Your task to perform on an android device: Is it going to rain today? Image 0: 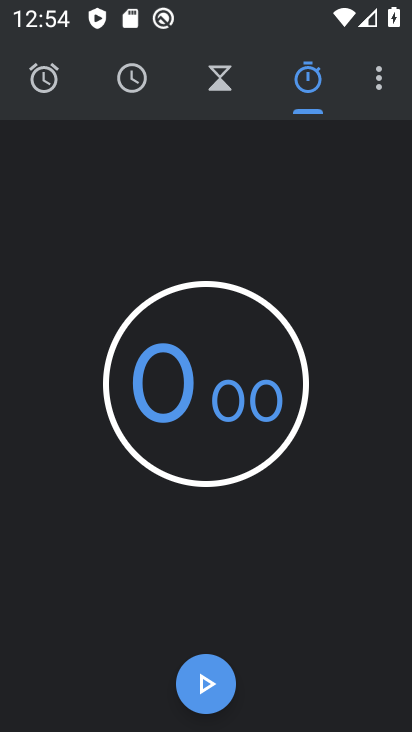
Step 0: press home button
Your task to perform on an android device: Is it going to rain today? Image 1: 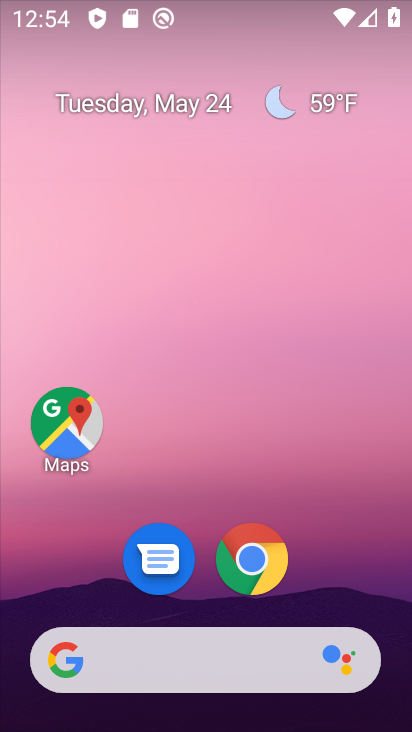
Step 1: drag from (387, 643) to (290, 56)
Your task to perform on an android device: Is it going to rain today? Image 2: 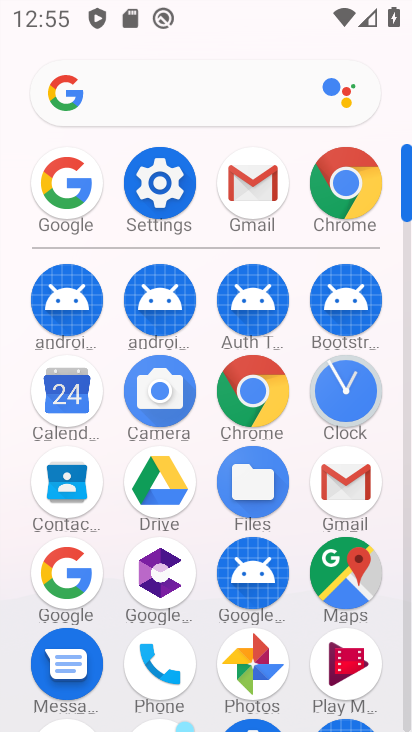
Step 2: click (72, 189)
Your task to perform on an android device: Is it going to rain today? Image 3: 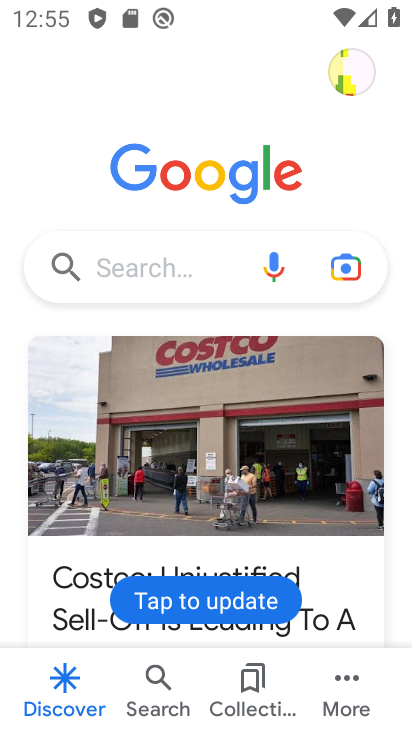
Step 3: click (145, 269)
Your task to perform on an android device: Is it going to rain today? Image 4: 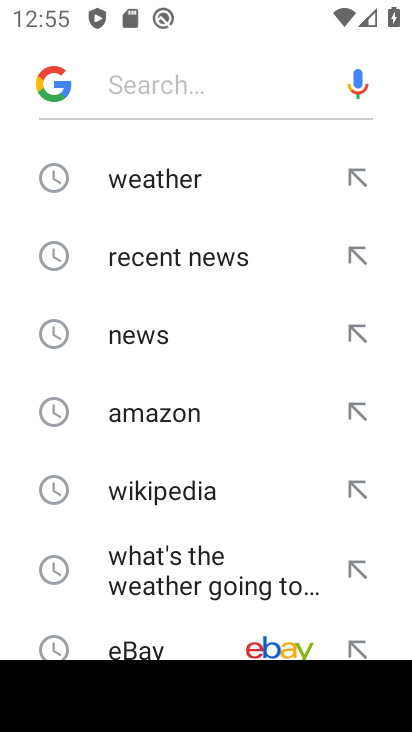
Step 4: drag from (181, 600) to (255, 164)
Your task to perform on an android device: Is it going to rain today? Image 5: 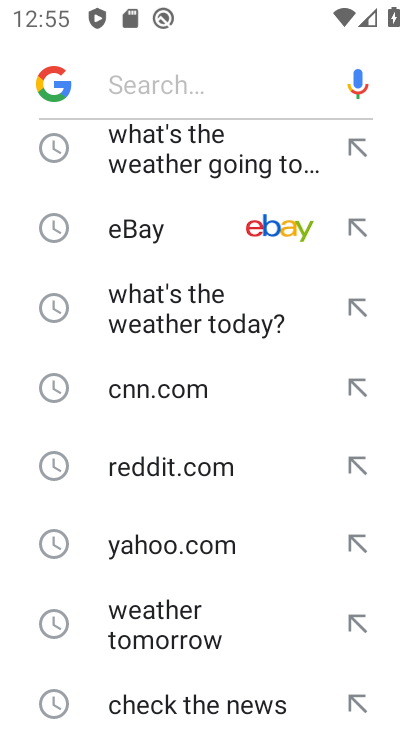
Step 5: drag from (207, 637) to (260, 316)
Your task to perform on an android device: Is it going to rain today? Image 6: 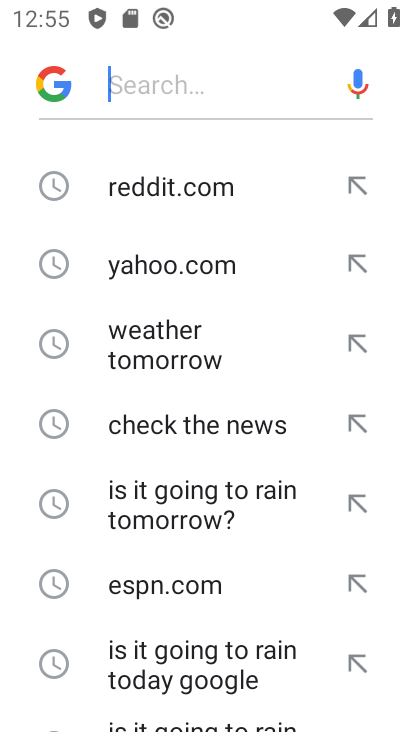
Step 6: drag from (199, 686) to (257, 349)
Your task to perform on an android device: Is it going to rain today? Image 7: 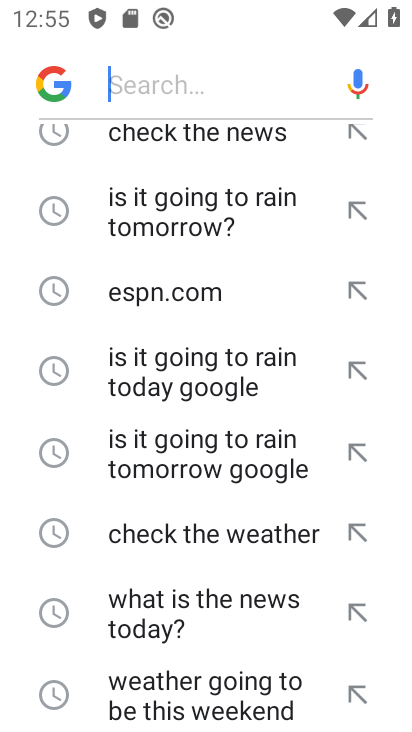
Step 7: click (253, 391)
Your task to perform on an android device: Is it going to rain today? Image 8: 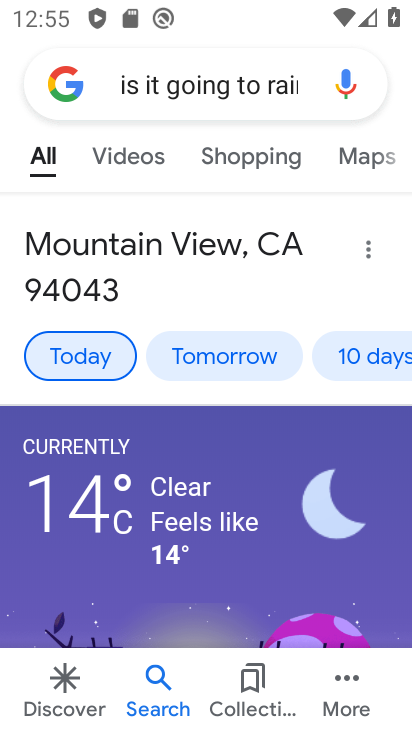
Step 8: task complete